Your task to perform on an android device: open app "Google Calendar" (install if not already installed) Image 0: 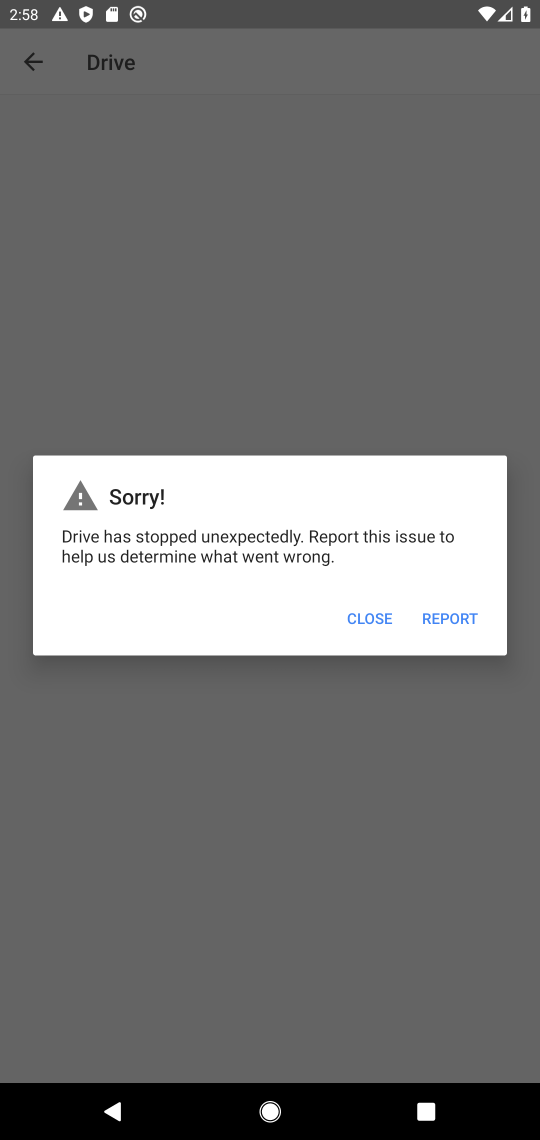
Step 0: click (356, 609)
Your task to perform on an android device: open app "Google Calendar" (install if not already installed) Image 1: 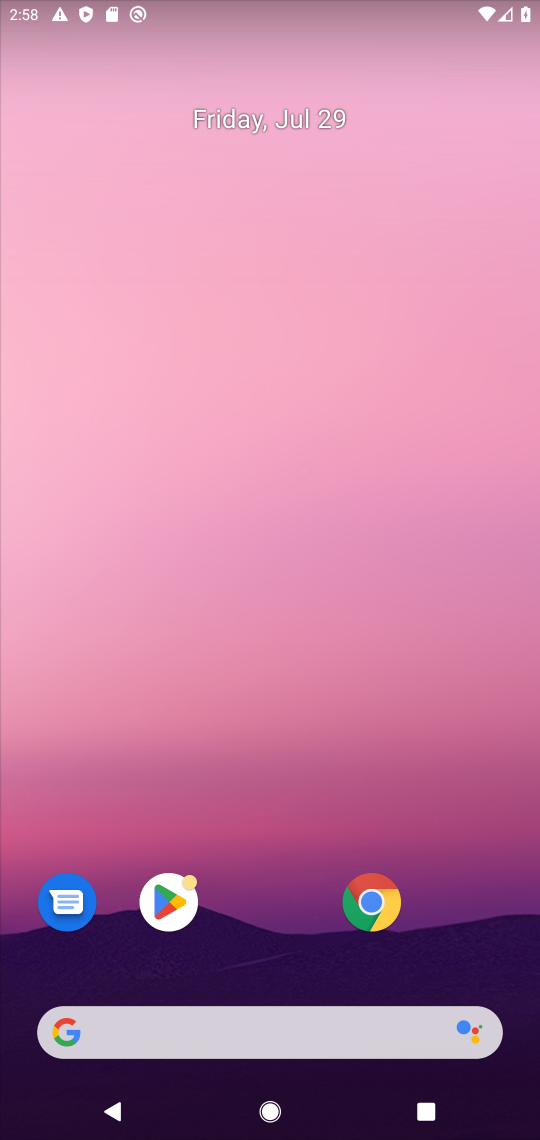
Step 1: drag from (221, 1089) to (287, 202)
Your task to perform on an android device: open app "Google Calendar" (install if not already installed) Image 2: 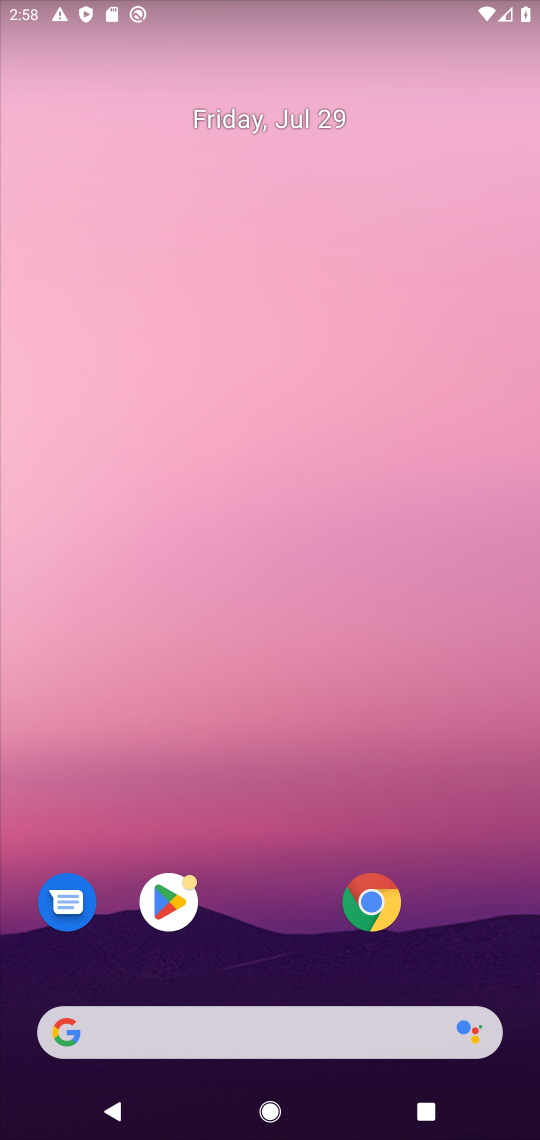
Step 2: drag from (275, 720) to (126, 80)
Your task to perform on an android device: open app "Google Calendar" (install if not already installed) Image 3: 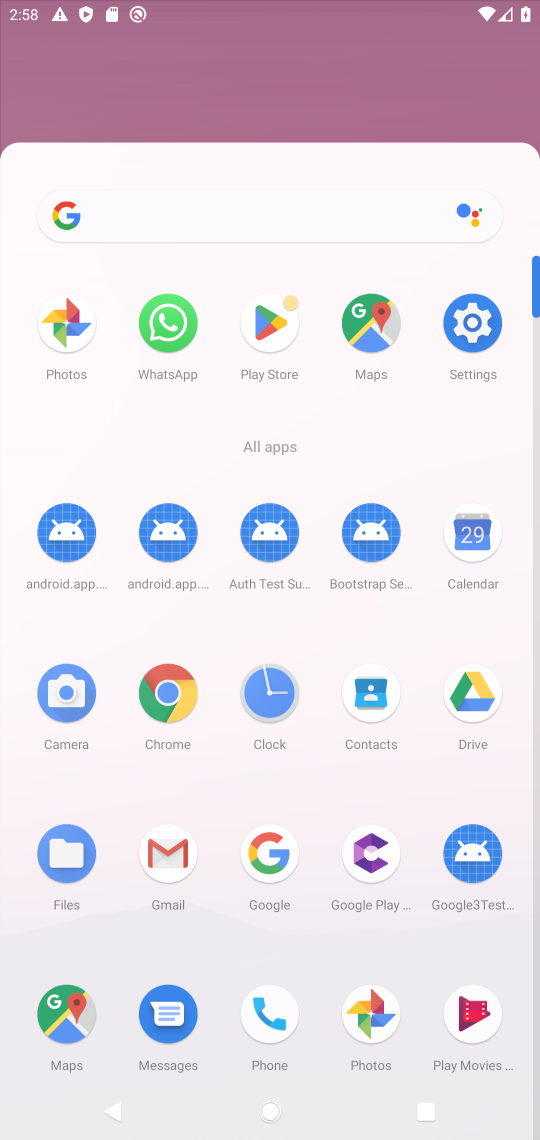
Step 3: drag from (227, 75) to (214, 186)
Your task to perform on an android device: open app "Google Calendar" (install if not already installed) Image 4: 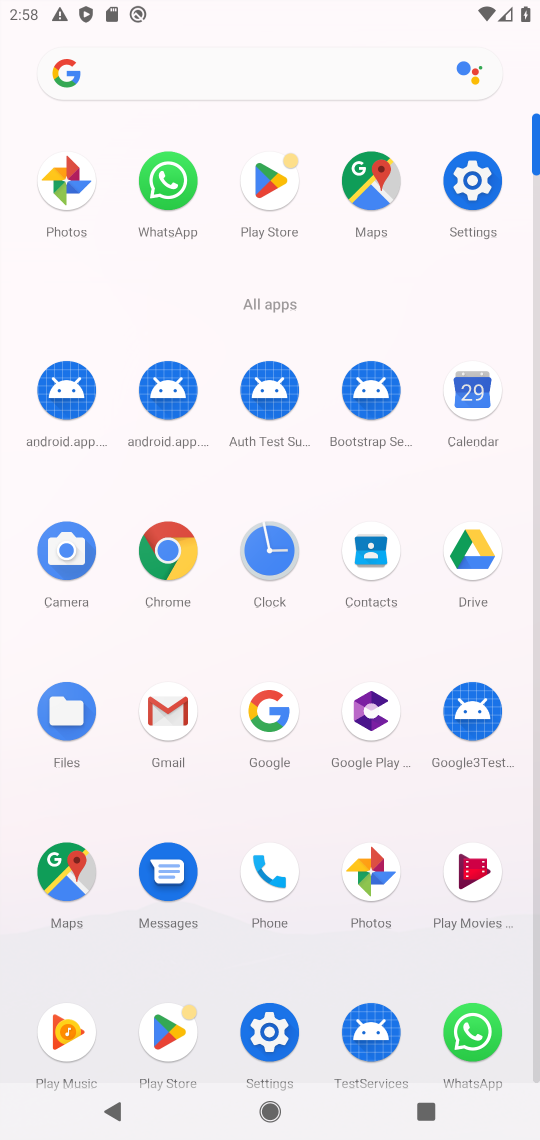
Step 4: click (269, 720)
Your task to perform on an android device: open app "Google Calendar" (install if not already installed) Image 5: 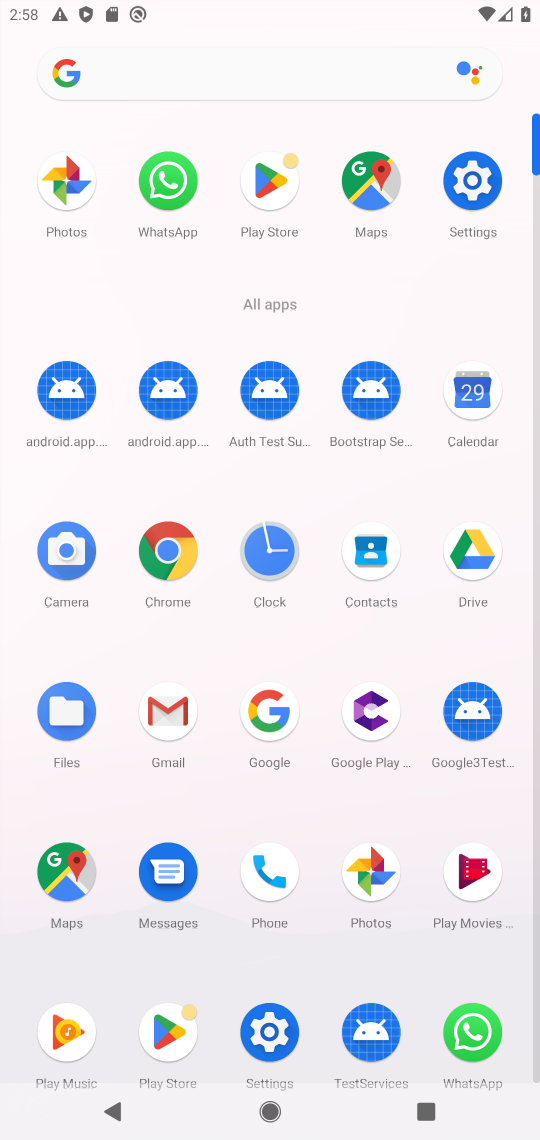
Step 5: click (263, 720)
Your task to perform on an android device: open app "Google Calendar" (install if not already installed) Image 6: 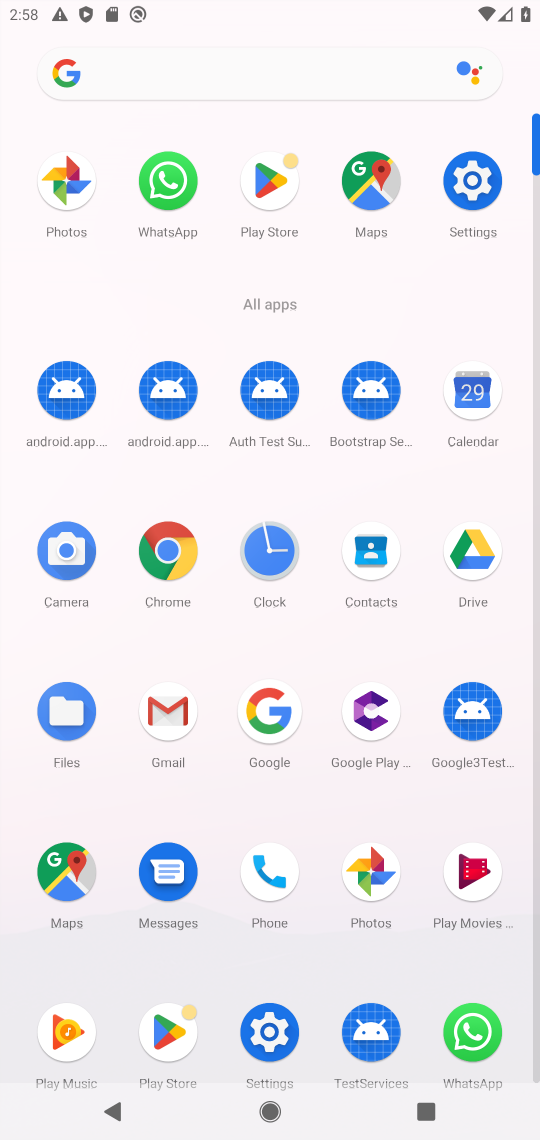
Step 6: click (259, 733)
Your task to perform on an android device: open app "Google Calendar" (install if not already installed) Image 7: 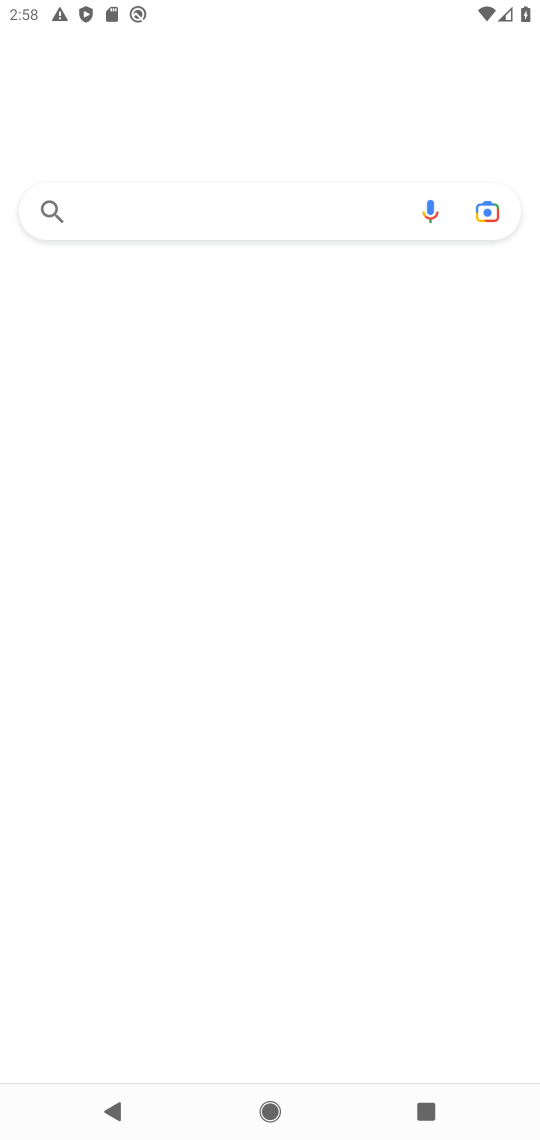
Step 7: click (266, 736)
Your task to perform on an android device: open app "Google Calendar" (install if not already installed) Image 8: 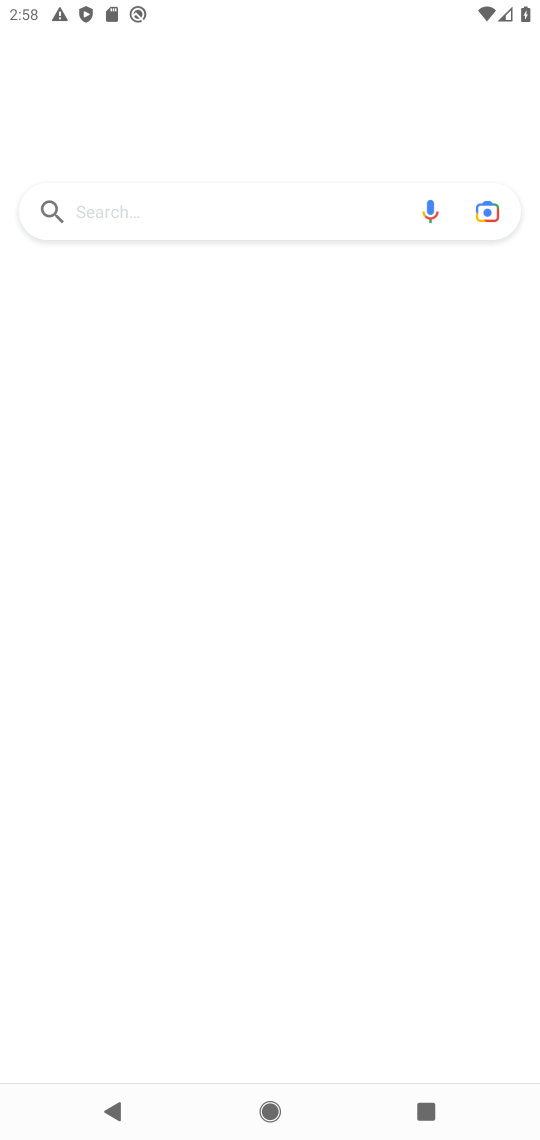
Step 8: click (266, 735)
Your task to perform on an android device: open app "Google Calendar" (install if not already installed) Image 9: 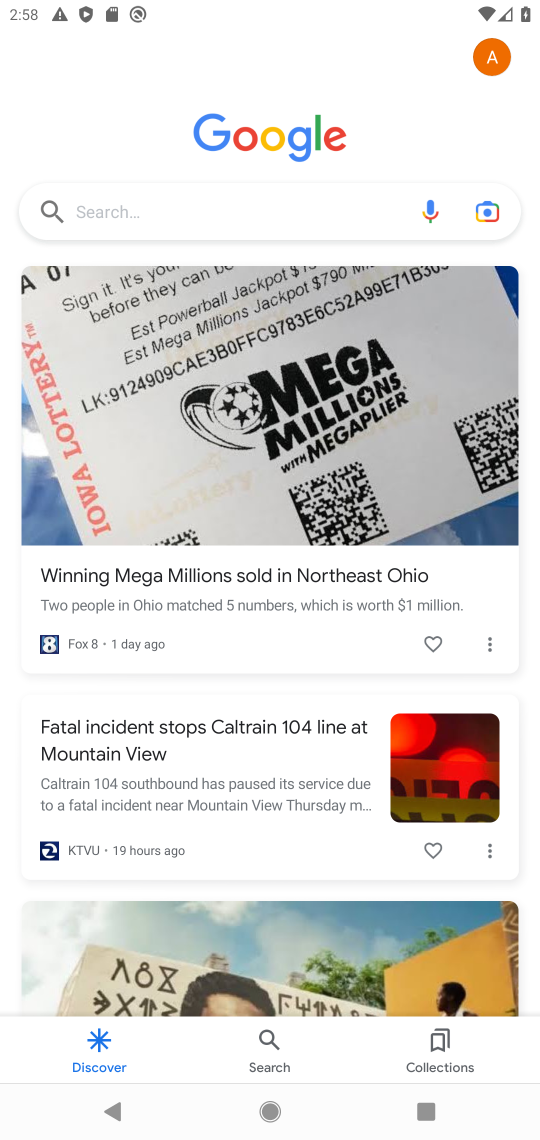
Step 9: click (109, 208)
Your task to perform on an android device: open app "Google Calendar" (install if not already installed) Image 10: 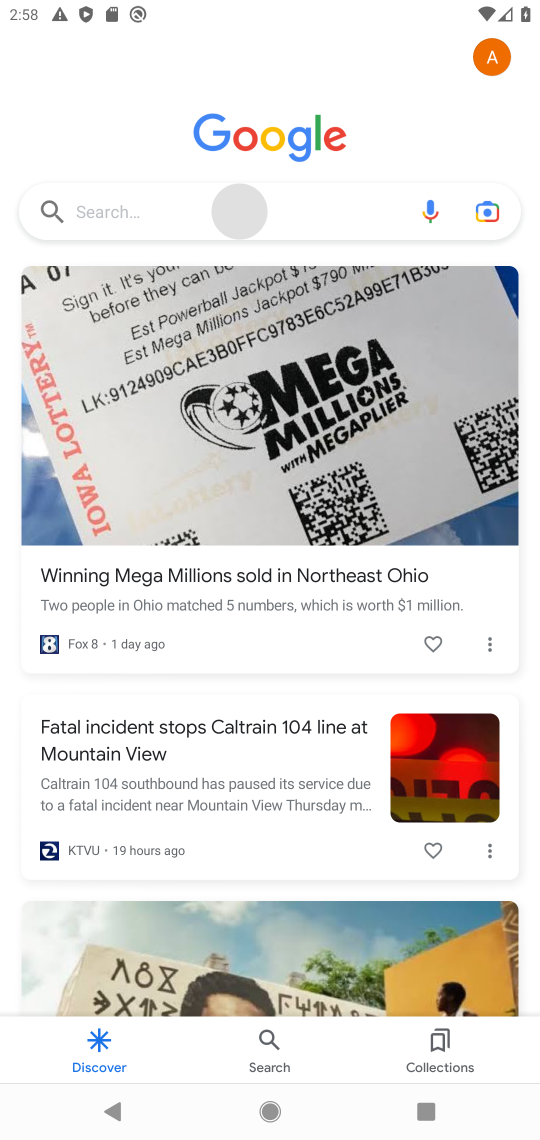
Step 10: click (109, 208)
Your task to perform on an android device: open app "Google Calendar" (install if not already installed) Image 11: 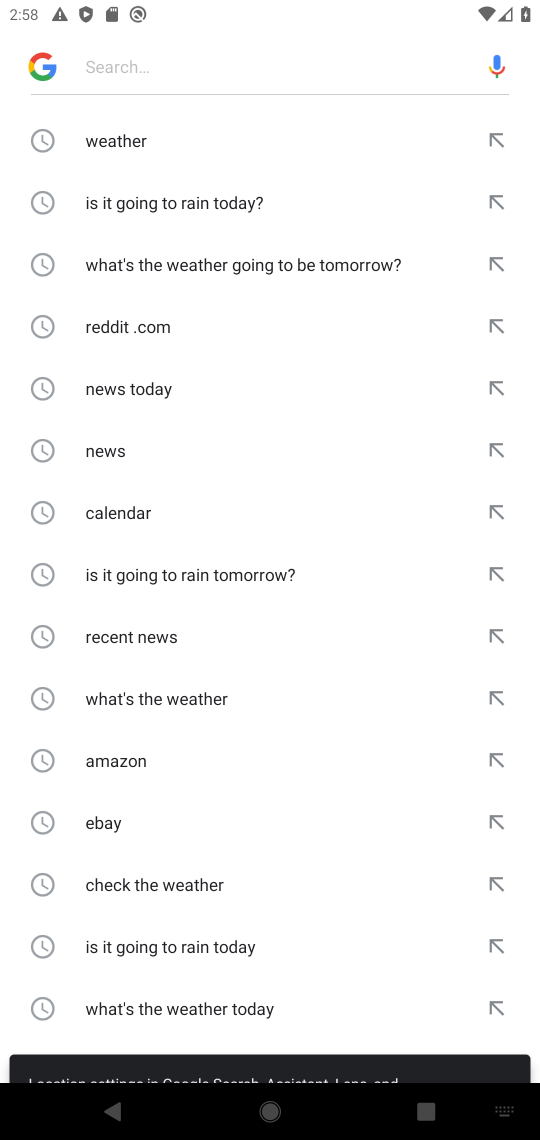
Step 11: press back button
Your task to perform on an android device: open app "Google Calendar" (install if not already installed) Image 12: 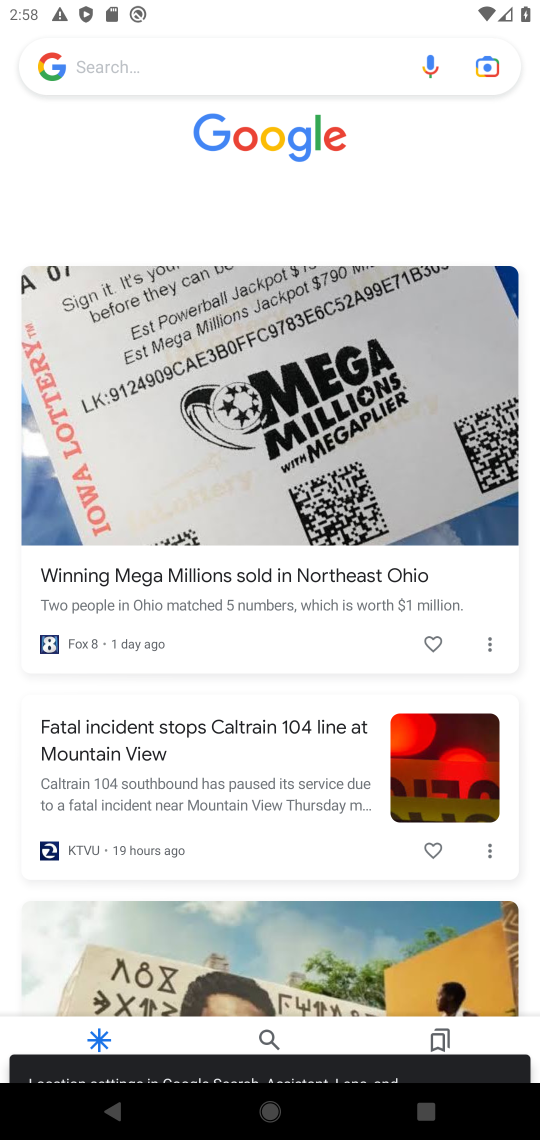
Step 12: press back button
Your task to perform on an android device: open app "Google Calendar" (install if not already installed) Image 13: 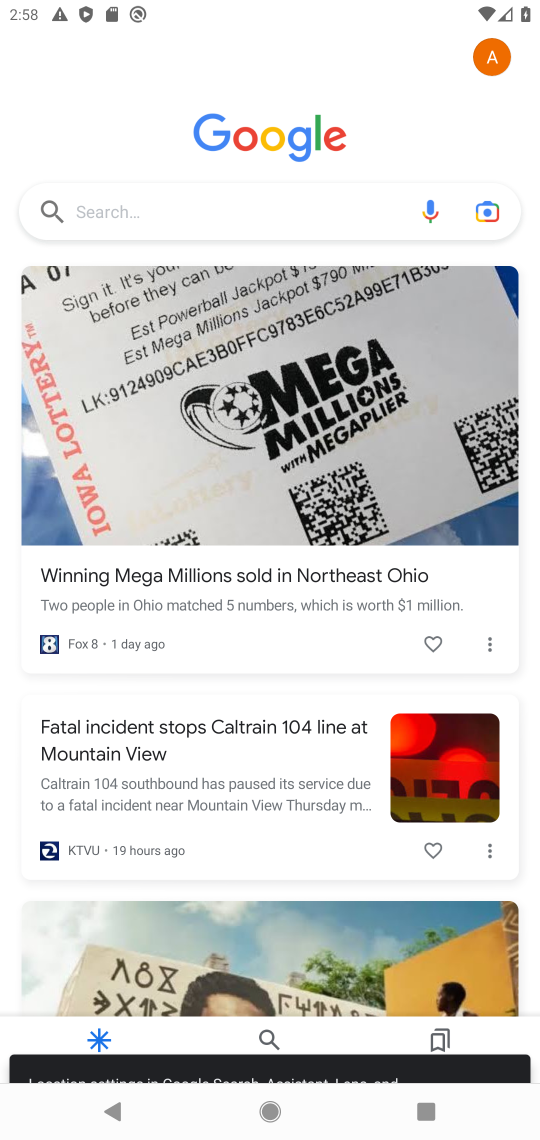
Step 13: press back button
Your task to perform on an android device: open app "Google Calendar" (install if not already installed) Image 14: 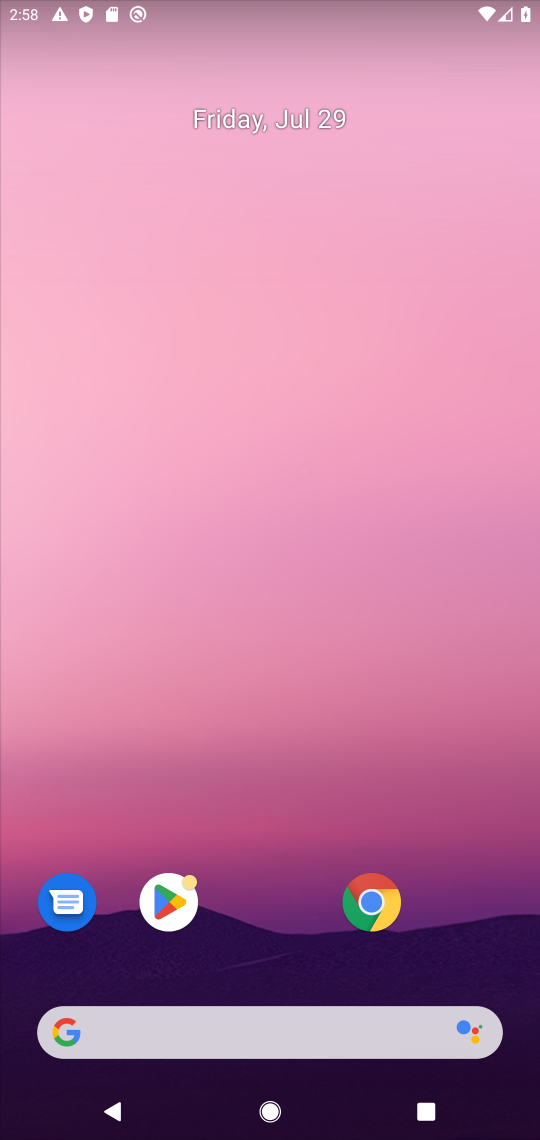
Step 14: press home button
Your task to perform on an android device: open app "Google Calendar" (install if not already installed) Image 15: 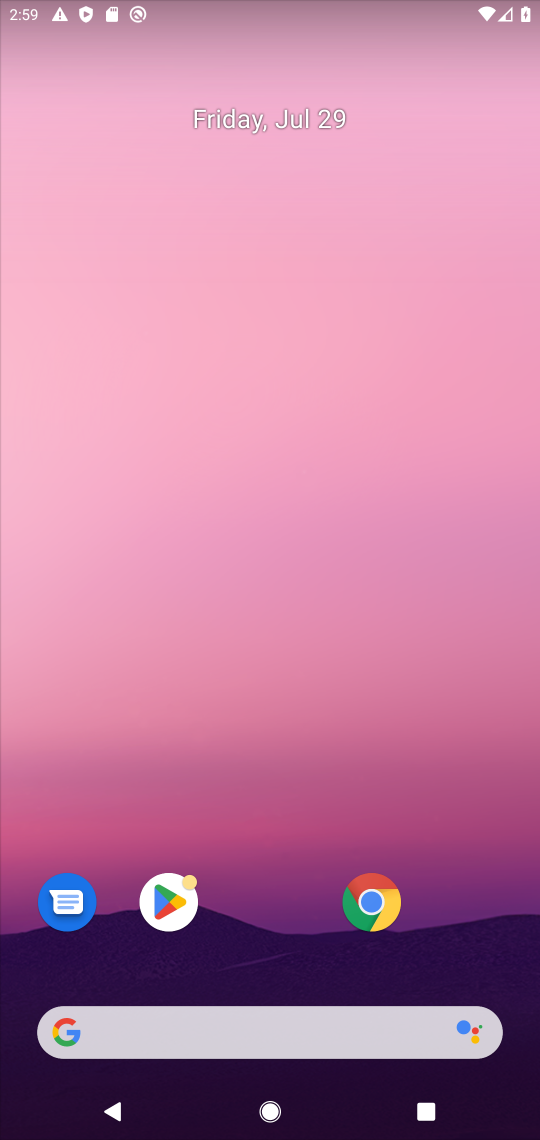
Step 15: press home button
Your task to perform on an android device: open app "Google Calendar" (install if not already installed) Image 16: 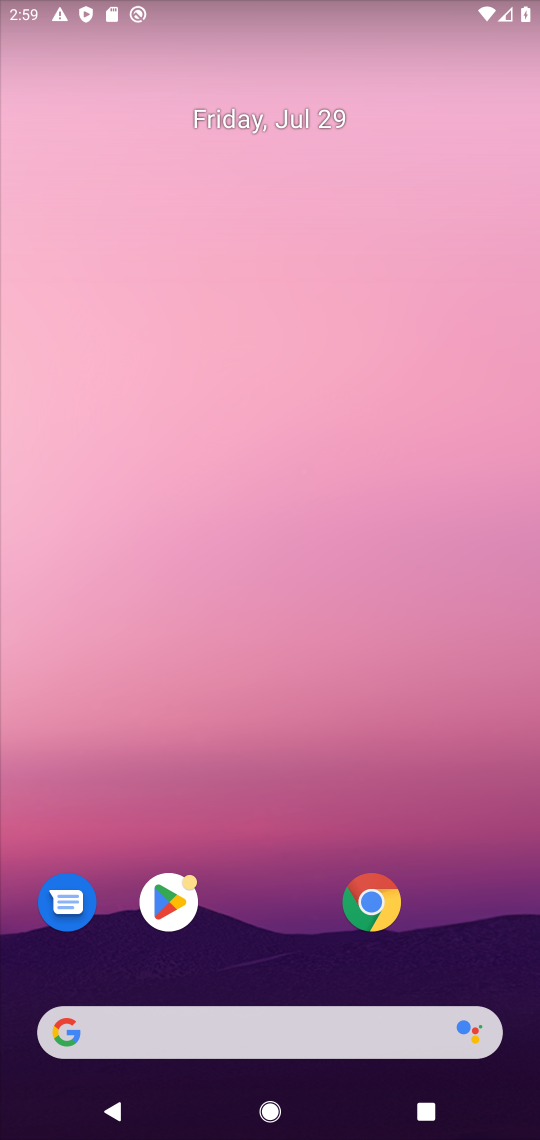
Step 16: click (197, 944)
Your task to perform on an android device: open app "Google Calendar" (install if not already installed) Image 17: 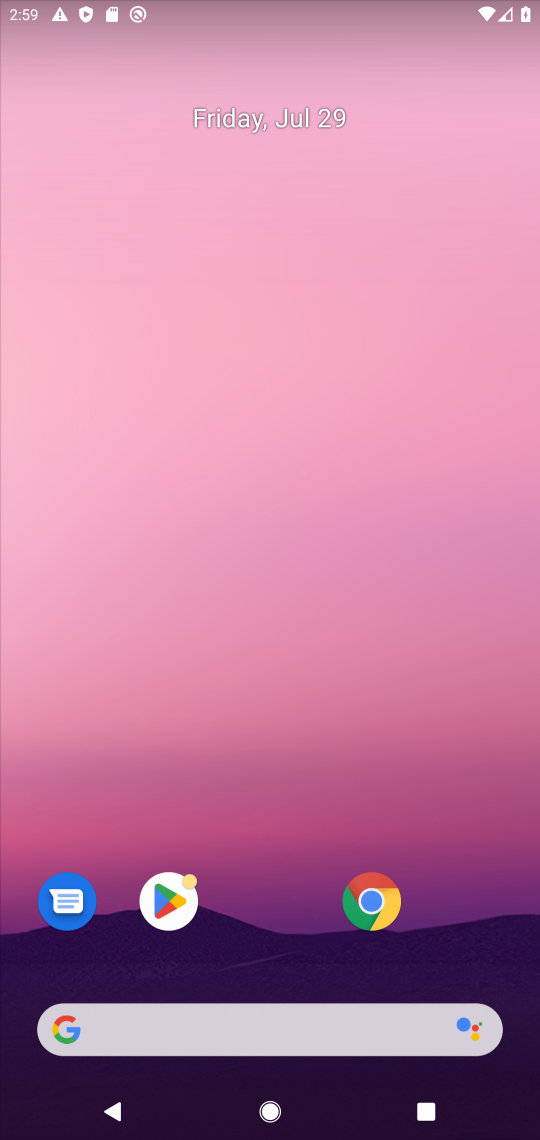
Step 17: click (149, 893)
Your task to perform on an android device: open app "Google Calendar" (install if not already installed) Image 18: 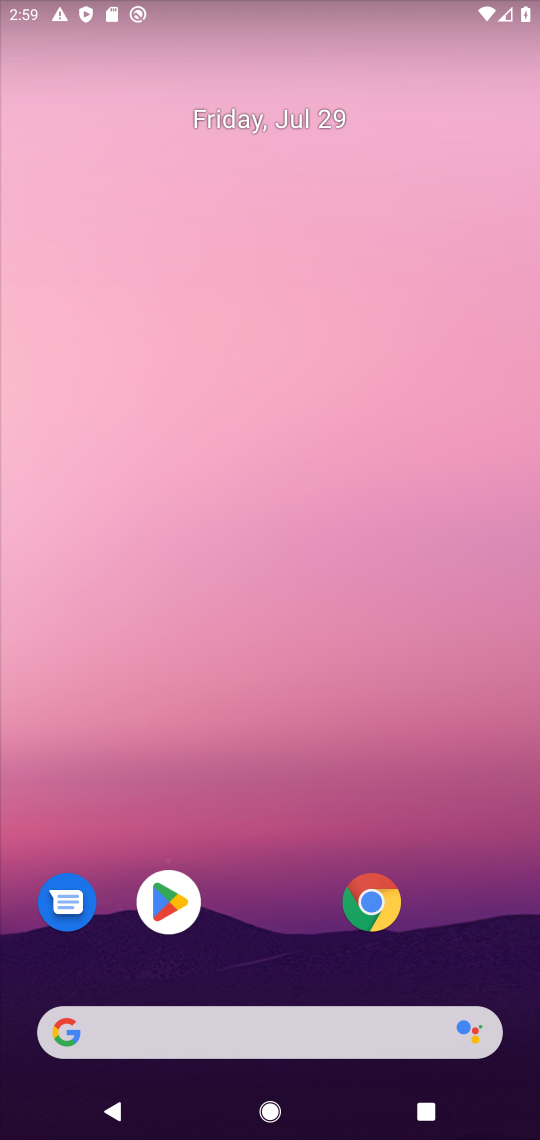
Step 18: click (155, 894)
Your task to perform on an android device: open app "Google Calendar" (install if not already installed) Image 19: 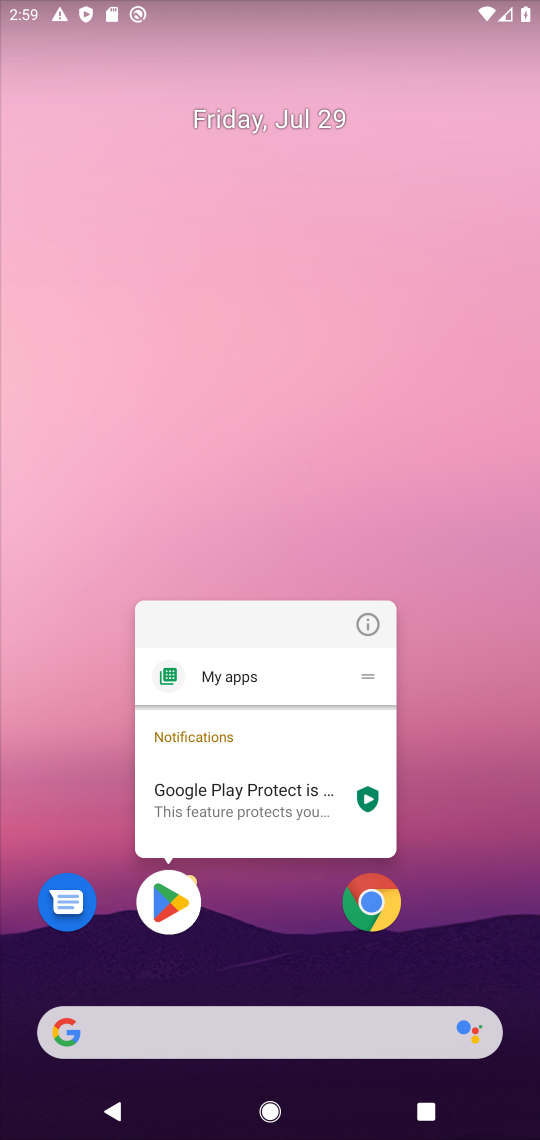
Step 19: click (156, 895)
Your task to perform on an android device: open app "Google Calendar" (install if not already installed) Image 20: 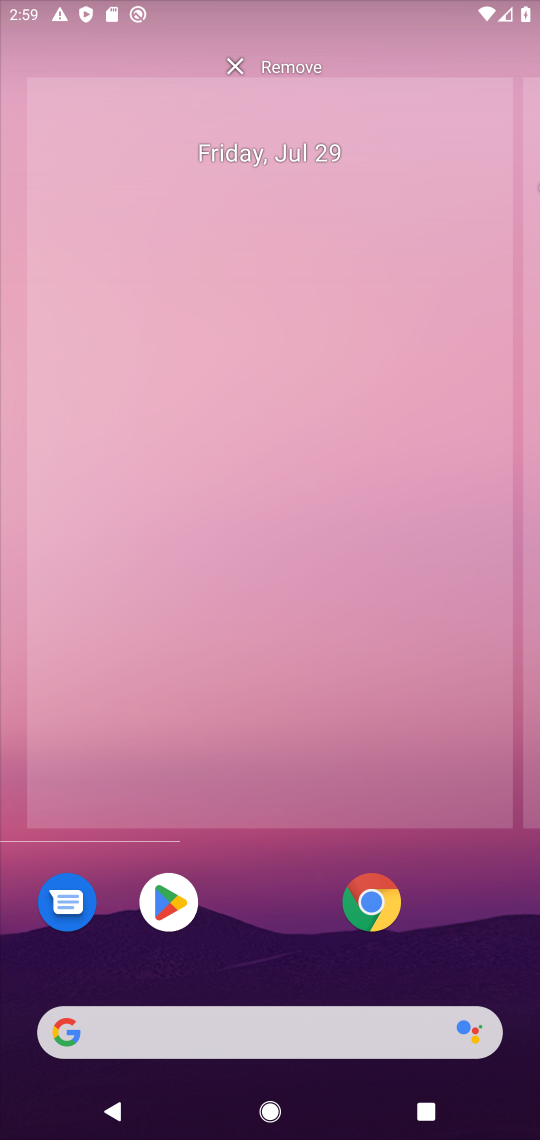
Step 20: click (162, 898)
Your task to perform on an android device: open app "Google Calendar" (install if not already installed) Image 21: 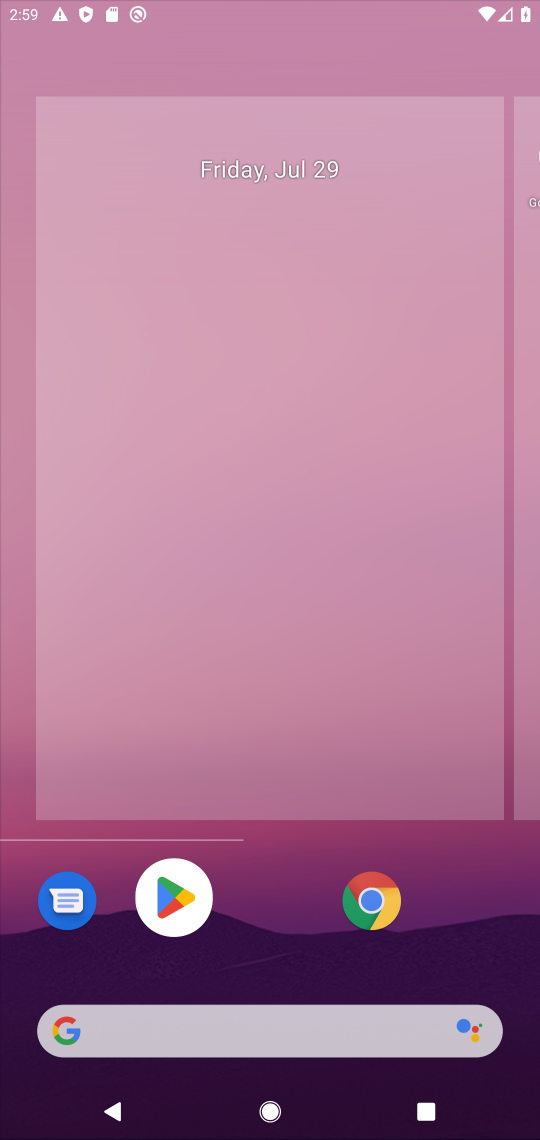
Step 21: click (177, 916)
Your task to perform on an android device: open app "Google Calendar" (install if not already installed) Image 22: 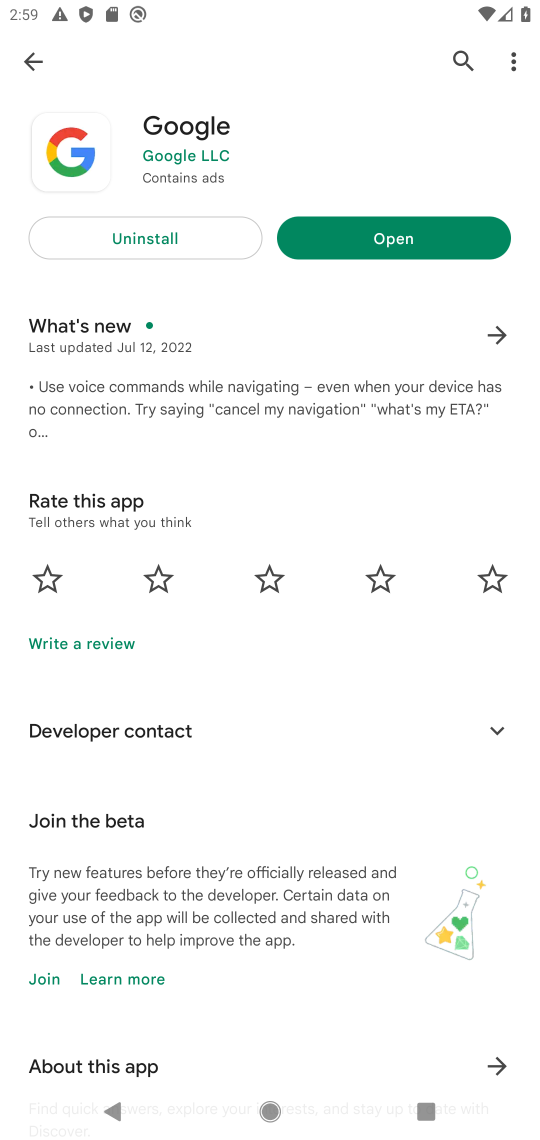
Step 22: click (184, 919)
Your task to perform on an android device: open app "Google Calendar" (install if not already installed) Image 23: 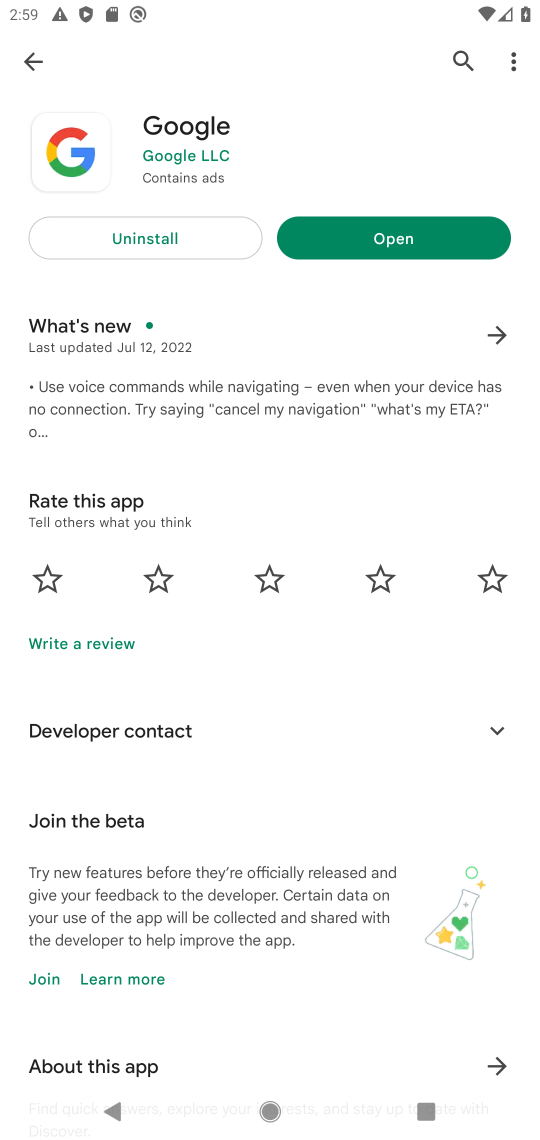
Step 23: click (16, 54)
Your task to perform on an android device: open app "Google Calendar" (install if not already installed) Image 24: 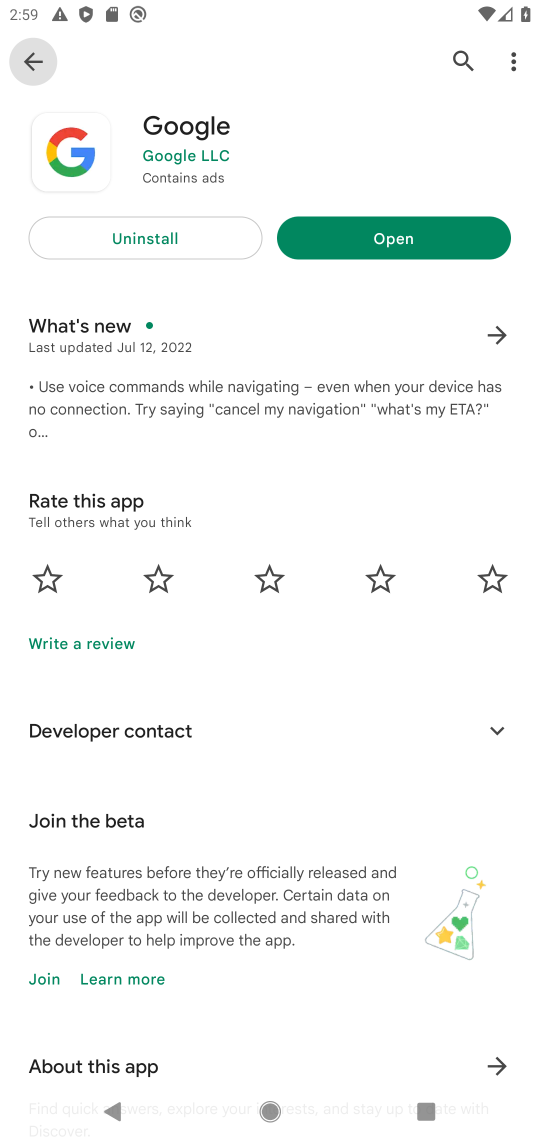
Step 24: click (22, 55)
Your task to perform on an android device: open app "Google Calendar" (install if not already installed) Image 25: 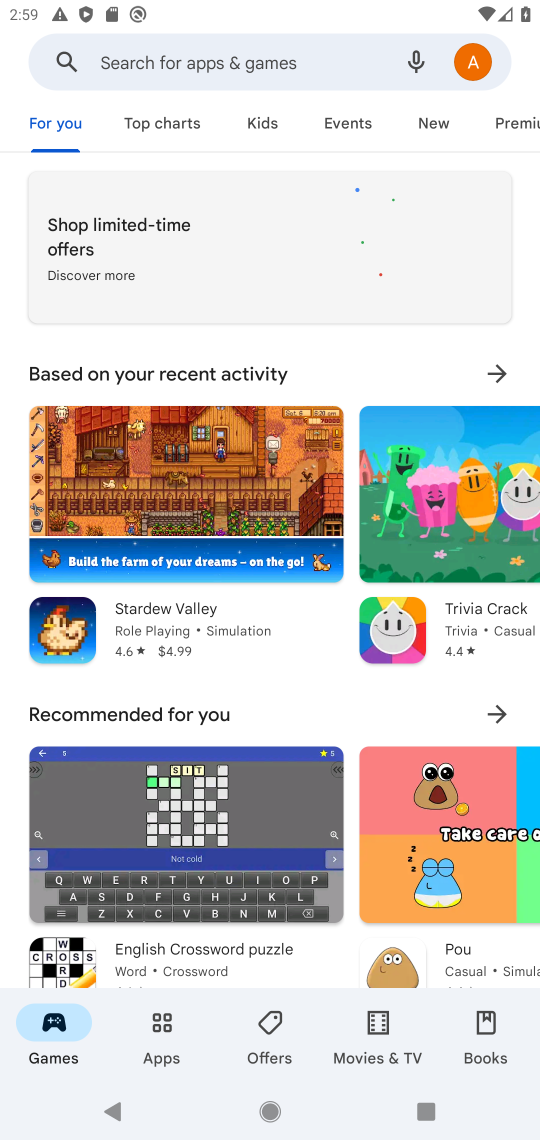
Step 25: click (137, 63)
Your task to perform on an android device: open app "Google Calendar" (install if not already installed) Image 26: 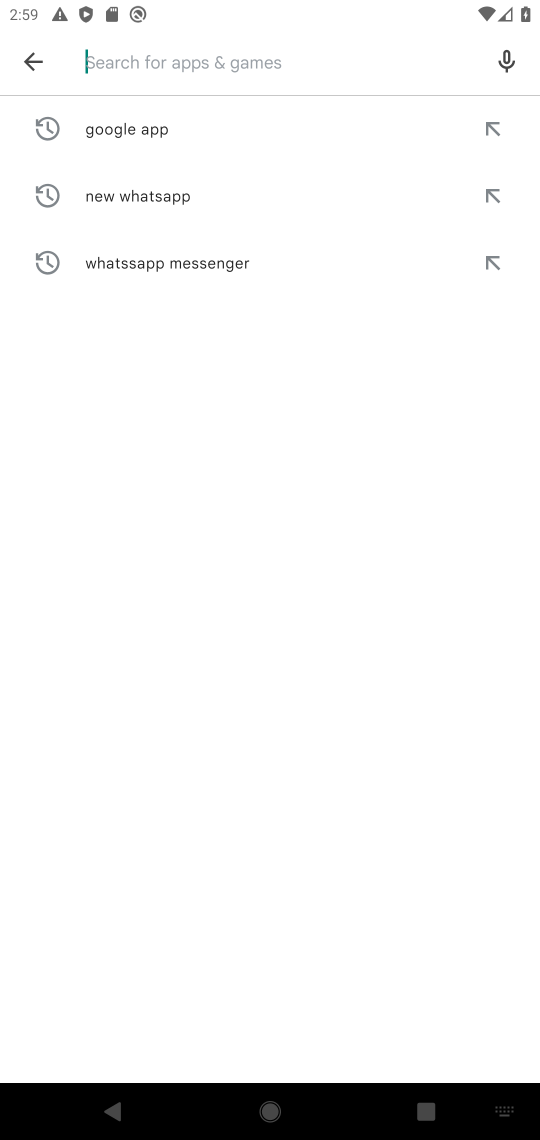
Step 26: type "Google  Calendar"
Your task to perform on an android device: open app "Google Calendar" (install if not already installed) Image 27: 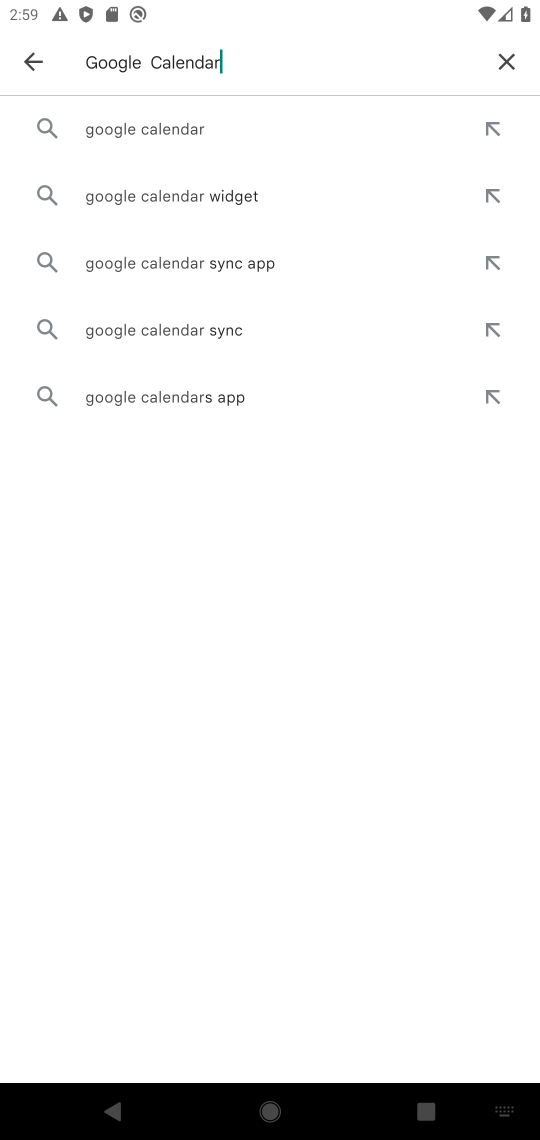
Step 27: click (149, 126)
Your task to perform on an android device: open app "Google Calendar" (install if not already installed) Image 28: 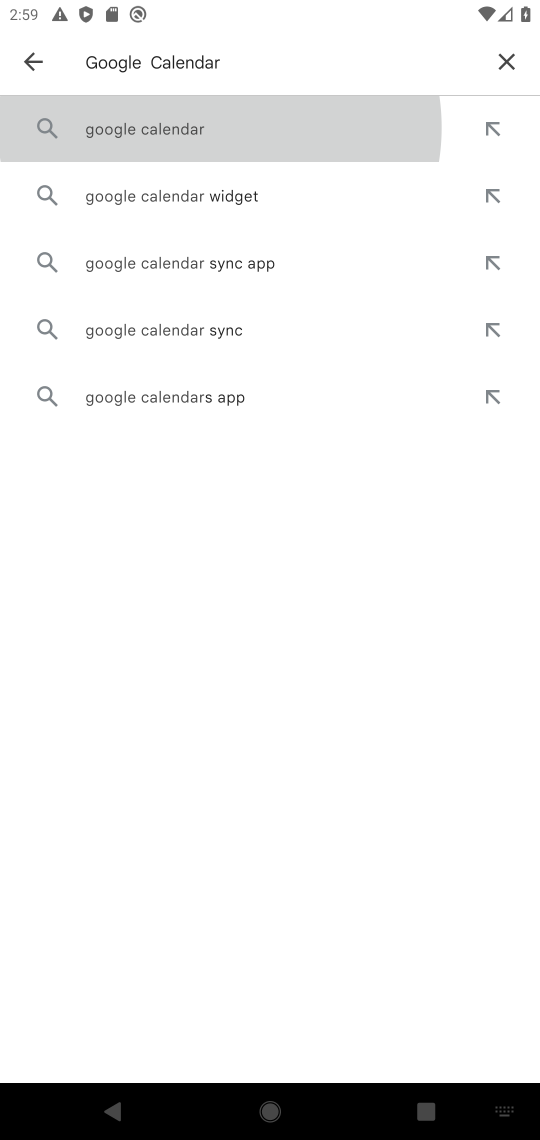
Step 28: click (158, 126)
Your task to perform on an android device: open app "Google Calendar" (install if not already installed) Image 29: 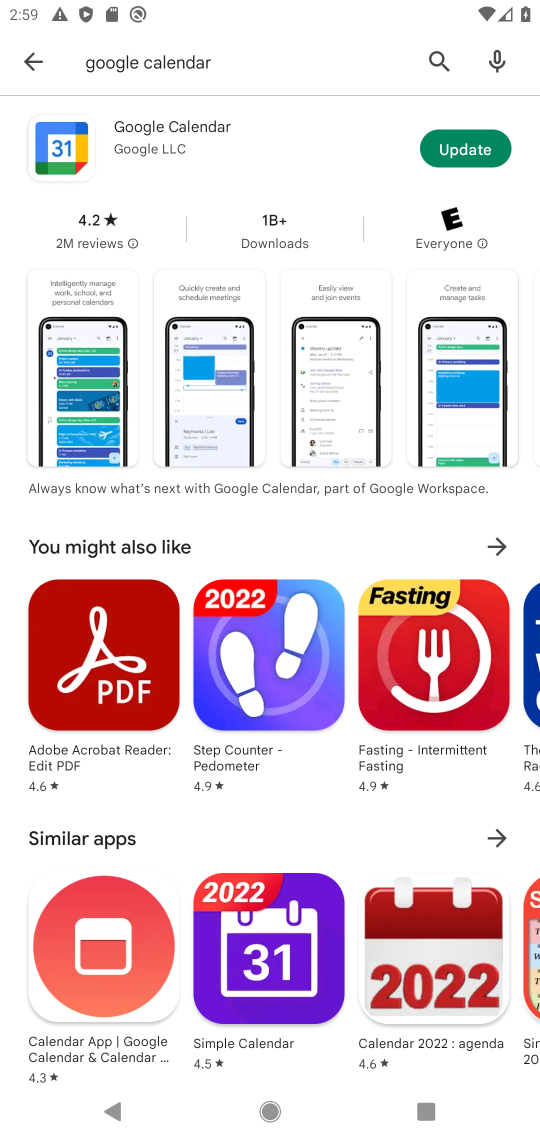
Step 29: click (450, 154)
Your task to perform on an android device: open app "Google Calendar" (install if not already installed) Image 30: 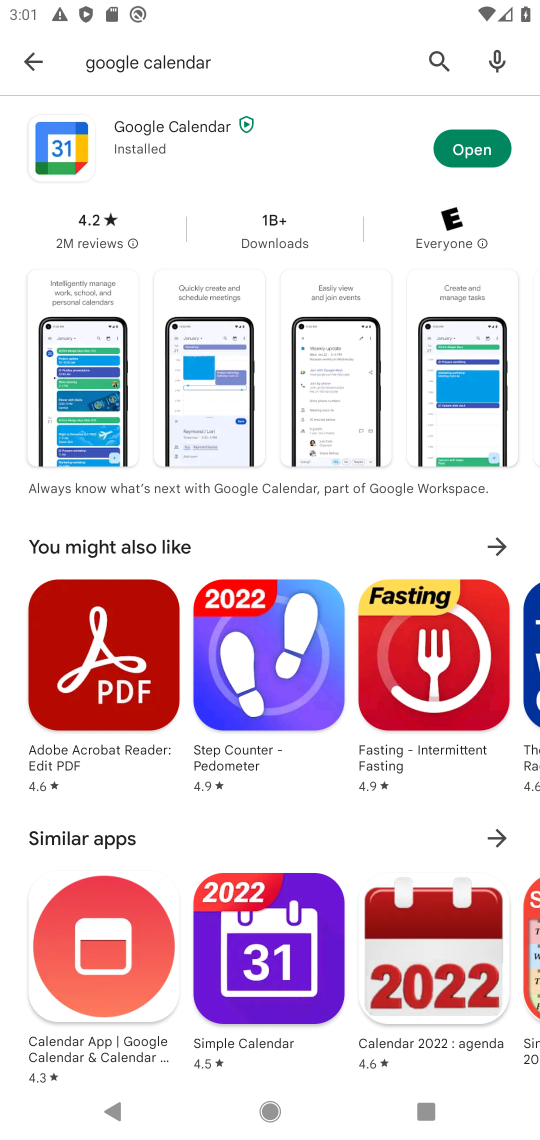
Step 30: click (474, 133)
Your task to perform on an android device: open app "Google Calendar" (install if not already installed) Image 31: 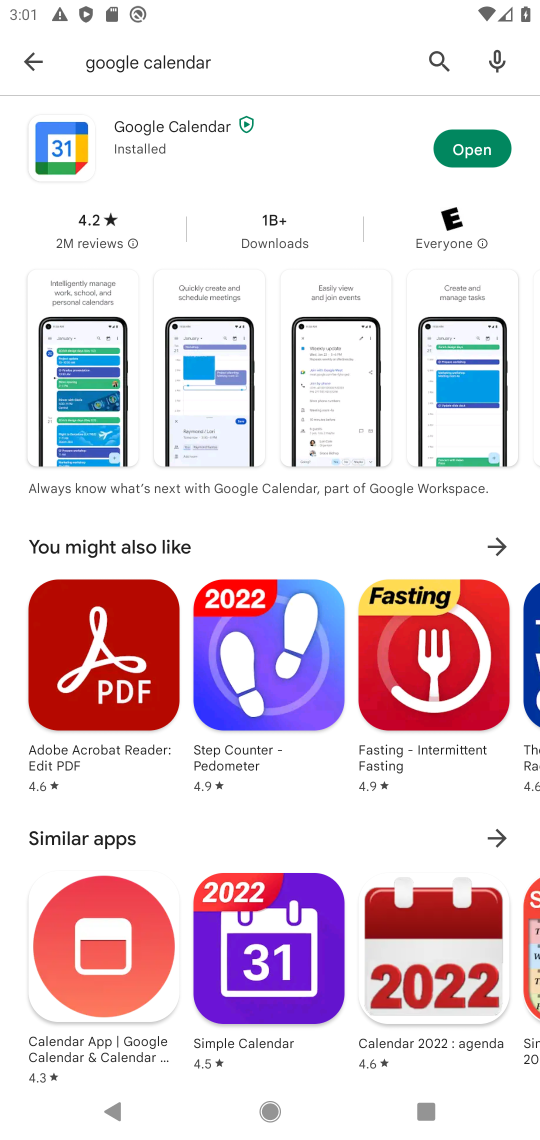
Step 31: click (474, 162)
Your task to perform on an android device: open app "Google Calendar" (install if not already installed) Image 32: 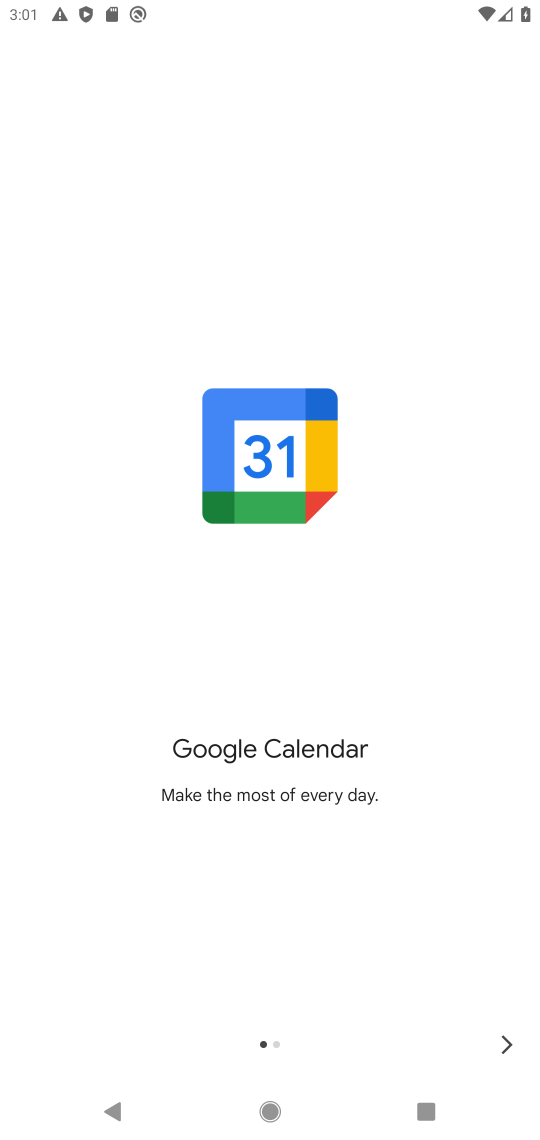
Step 32: click (491, 1032)
Your task to perform on an android device: open app "Google Calendar" (install if not already installed) Image 33: 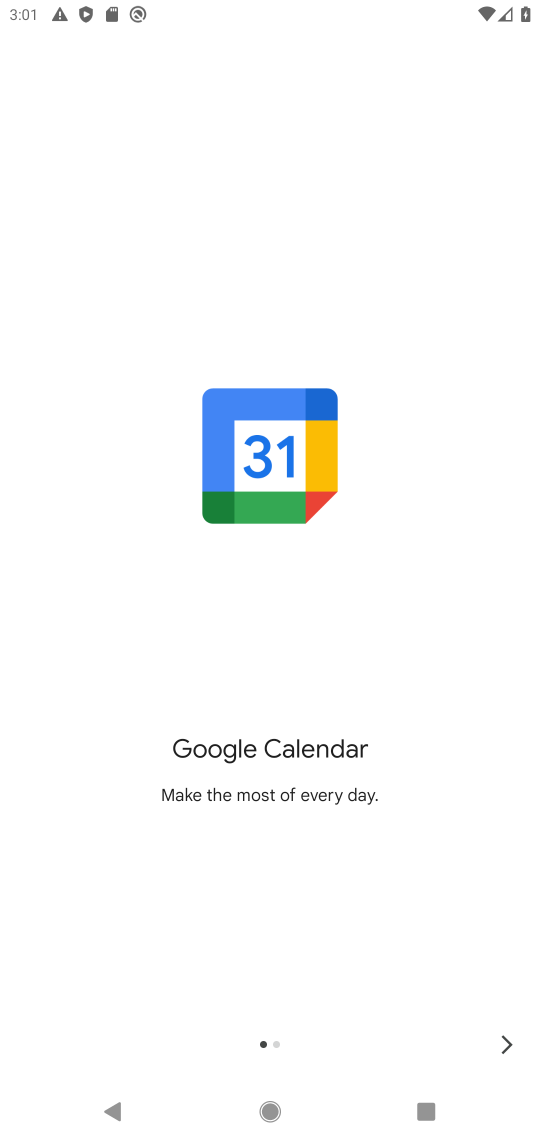
Step 33: click (491, 1032)
Your task to perform on an android device: open app "Google Calendar" (install if not already installed) Image 34: 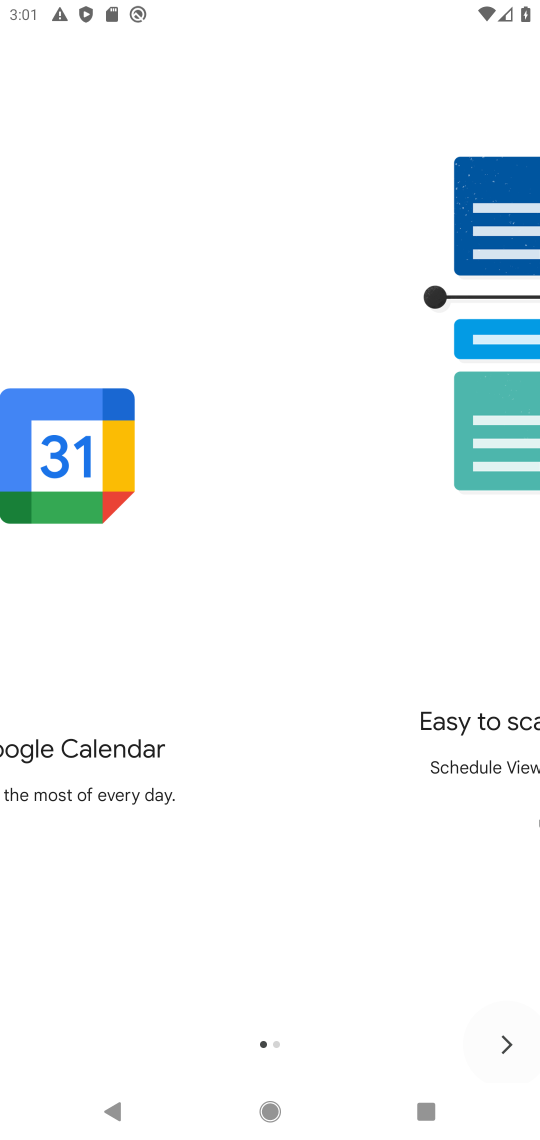
Step 34: click (495, 1037)
Your task to perform on an android device: open app "Google Calendar" (install if not already installed) Image 35: 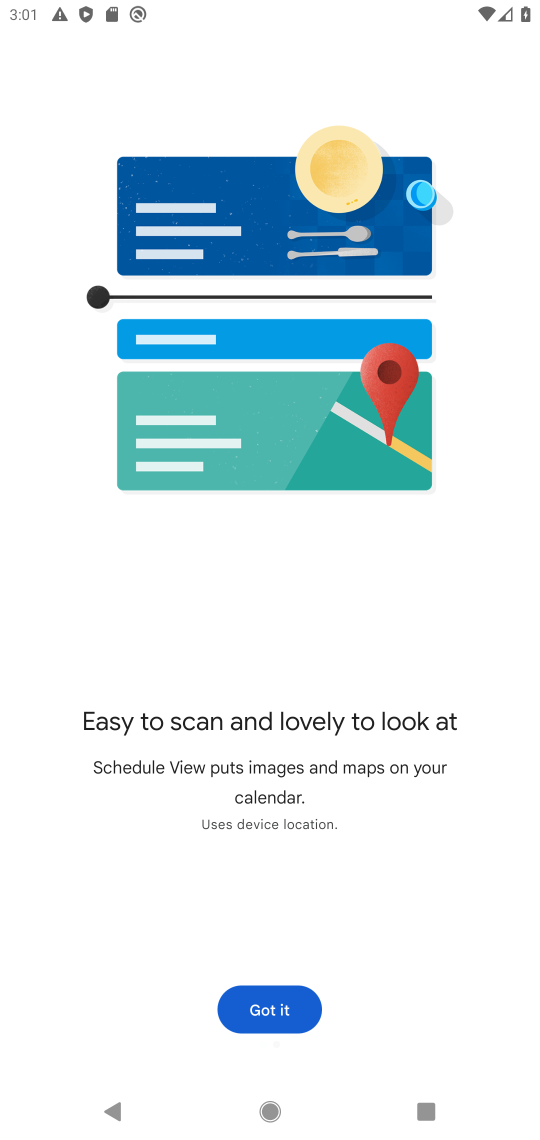
Step 35: click (497, 1038)
Your task to perform on an android device: open app "Google Calendar" (install if not already installed) Image 36: 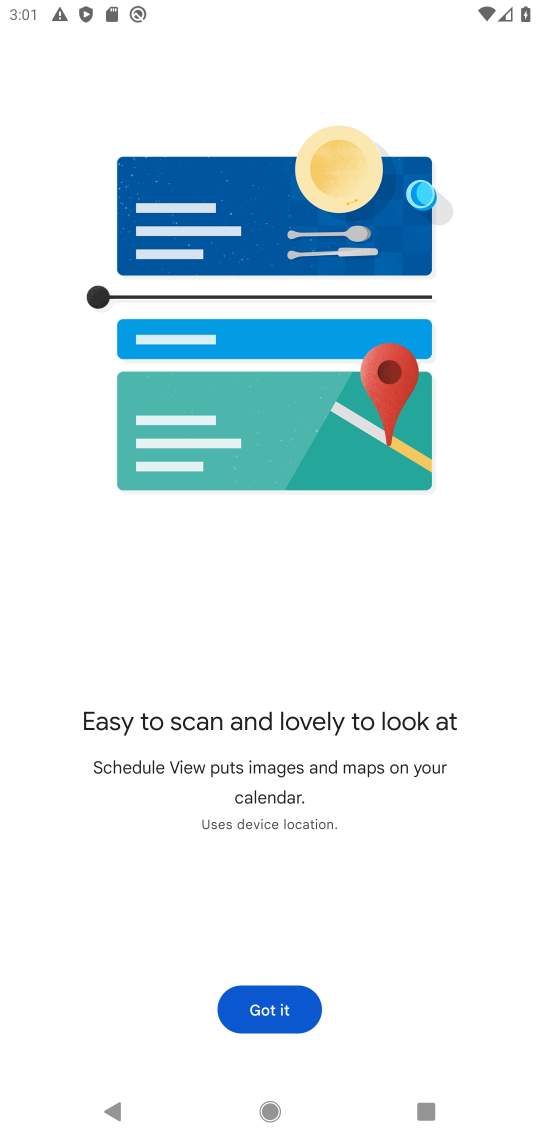
Step 36: click (254, 1007)
Your task to perform on an android device: open app "Google Calendar" (install if not already installed) Image 37: 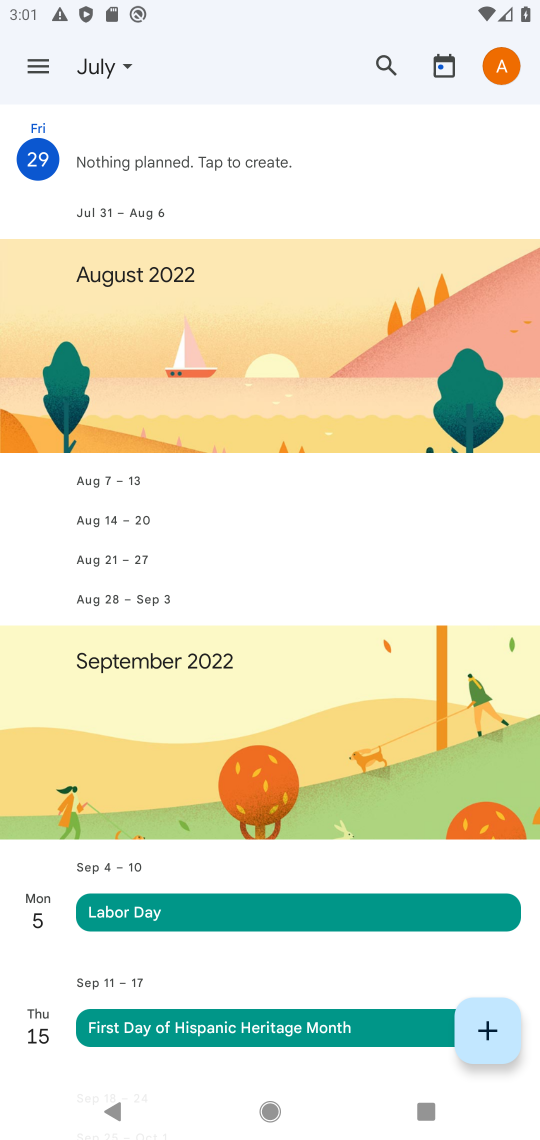
Step 37: task complete